Your task to perform on an android device: Open Youtube and go to "Your channel" Image 0: 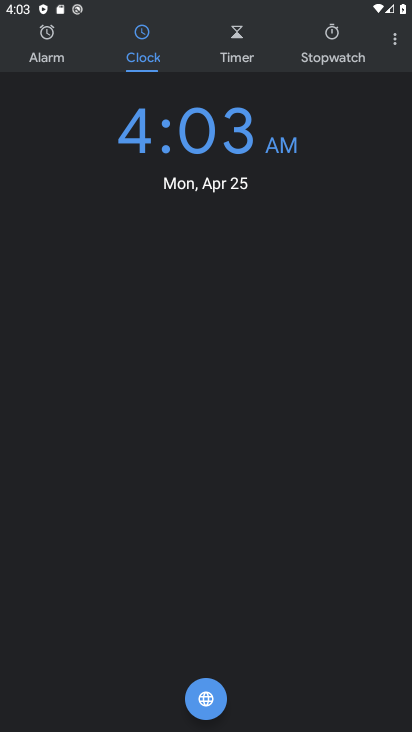
Step 0: press home button
Your task to perform on an android device: Open Youtube and go to "Your channel" Image 1: 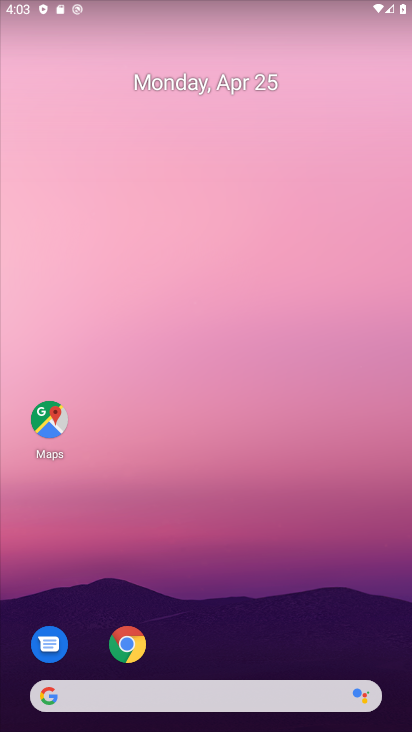
Step 1: drag from (194, 650) to (191, 253)
Your task to perform on an android device: Open Youtube and go to "Your channel" Image 2: 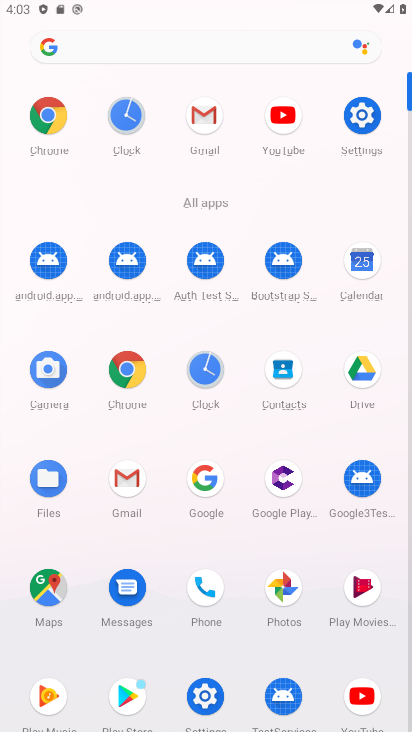
Step 2: click (358, 686)
Your task to perform on an android device: Open Youtube and go to "Your channel" Image 3: 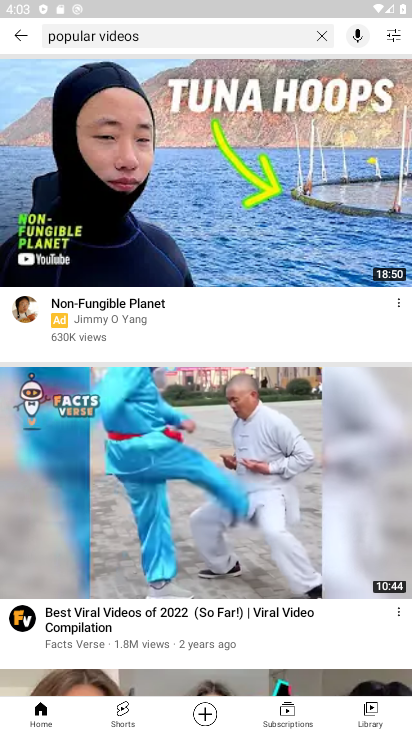
Step 3: click (393, 30)
Your task to perform on an android device: Open Youtube and go to "Your channel" Image 4: 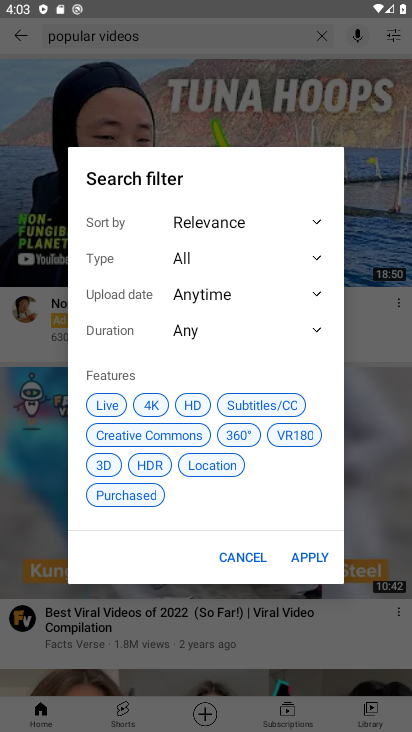
Step 4: click (8, 33)
Your task to perform on an android device: Open Youtube and go to "Your channel" Image 5: 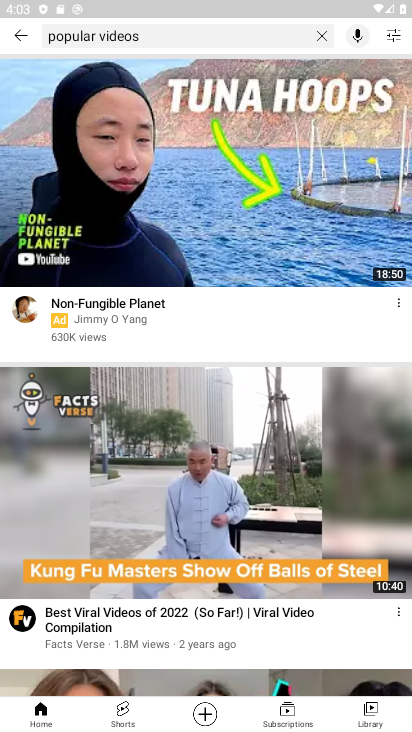
Step 5: click (11, 34)
Your task to perform on an android device: Open Youtube and go to "Your channel" Image 6: 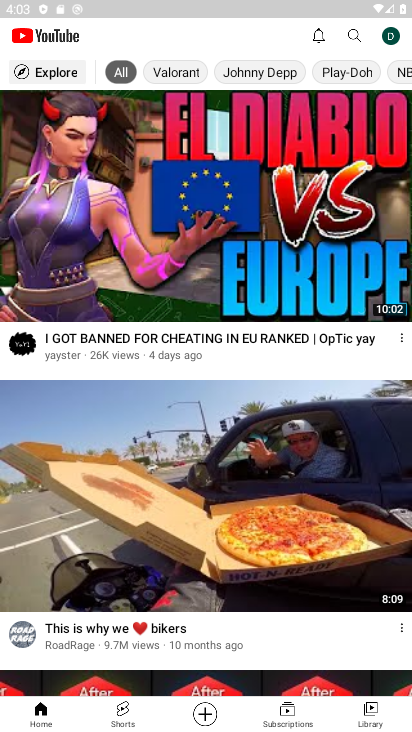
Step 6: click (385, 35)
Your task to perform on an android device: Open Youtube and go to "Your channel" Image 7: 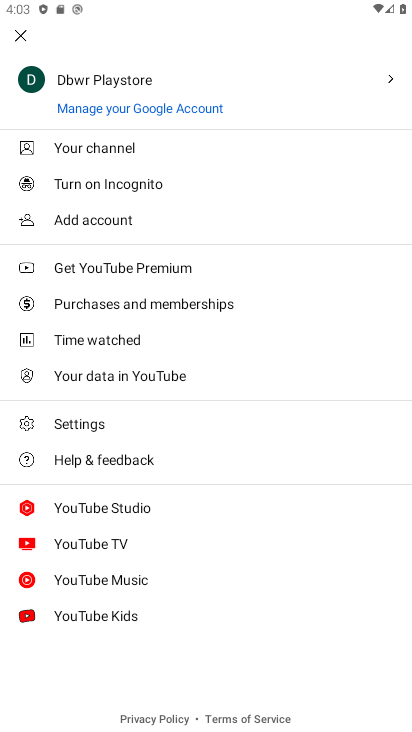
Step 7: click (118, 145)
Your task to perform on an android device: Open Youtube and go to "Your channel" Image 8: 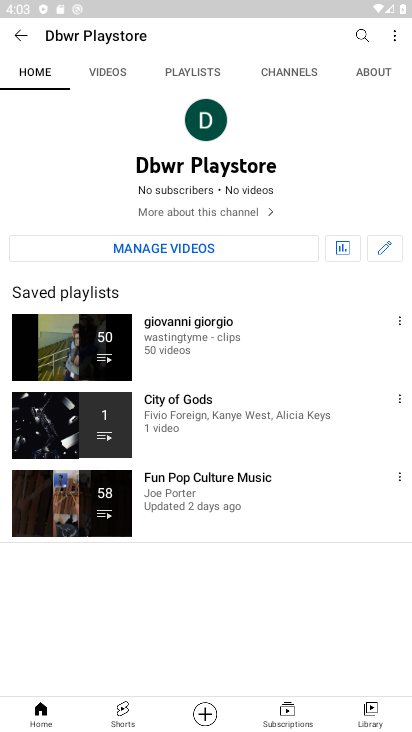
Step 8: task complete